Your task to perform on an android device: open a bookmark in the chrome app Image 0: 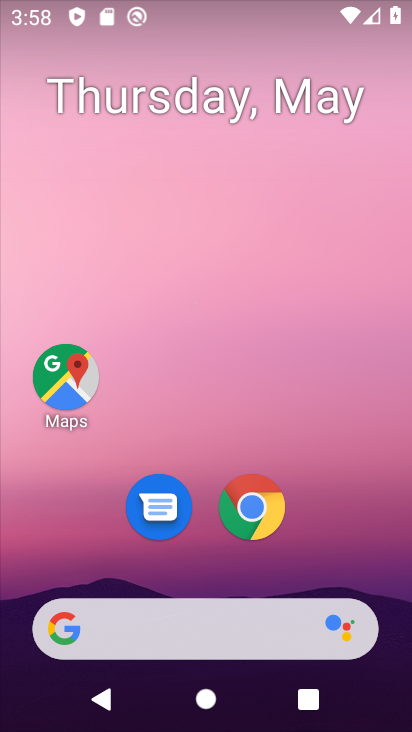
Step 0: drag from (378, 567) to (172, 98)
Your task to perform on an android device: open a bookmark in the chrome app Image 1: 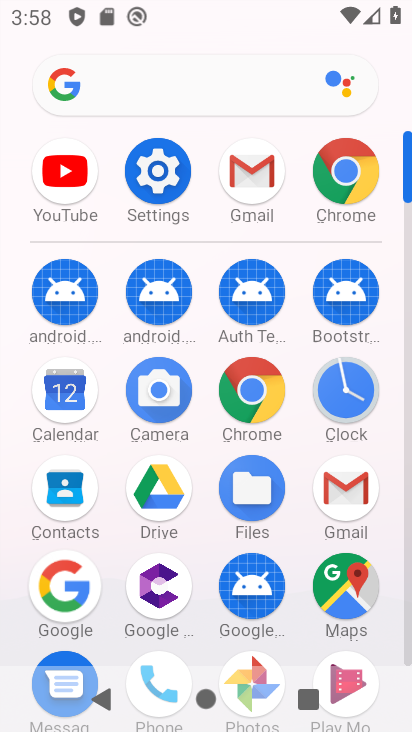
Step 1: click (357, 168)
Your task to perform on an android device: open a bookmark in the chrome app Image 2: 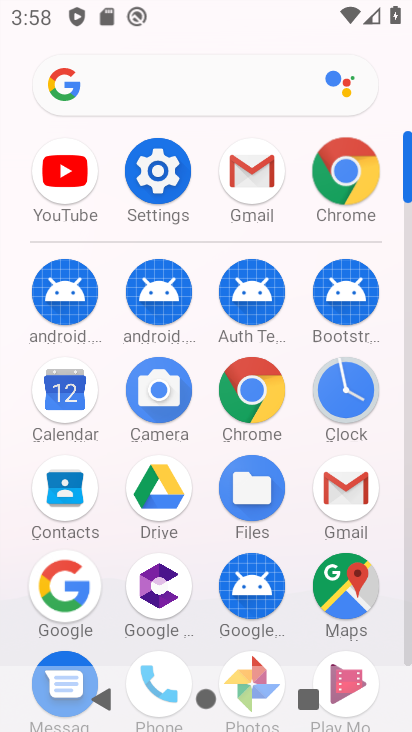
Step 2: click (357, 168)
Your task to perform on an android device: open a bookmark in the chrome app Image 3: 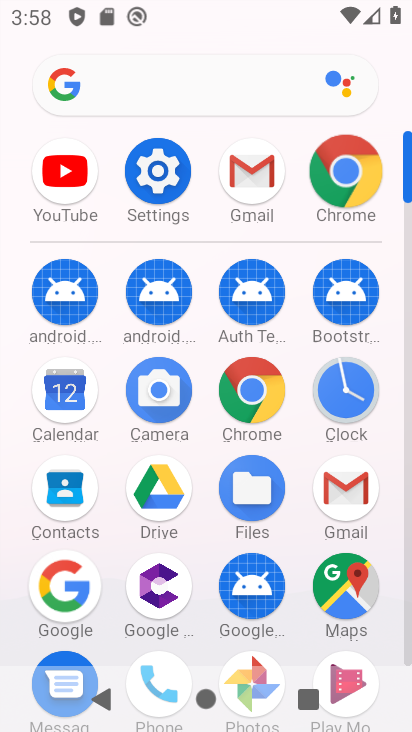
Step 3: click (349, 169)
Your task to perform on an android device: open a bookmark in the chrome app Image 4: 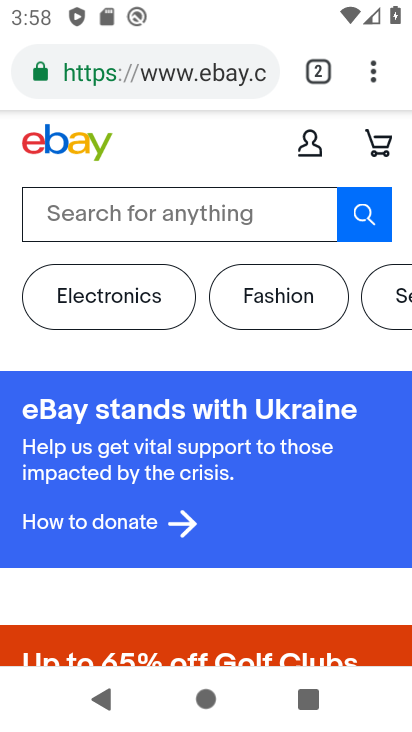
Step 4: click (347, 157)
Your task to perform on an android device: open a bookmark in the chrome app Image 5: 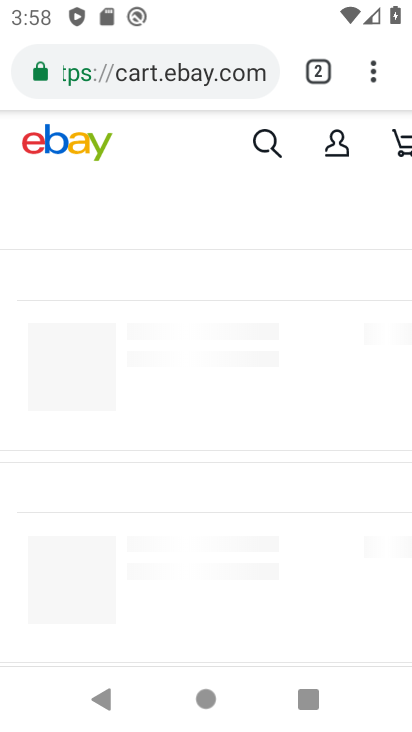
Step 5: click (360, 64)
Your task to perform on an android device: open a bookmark in the chrome app Image 6: 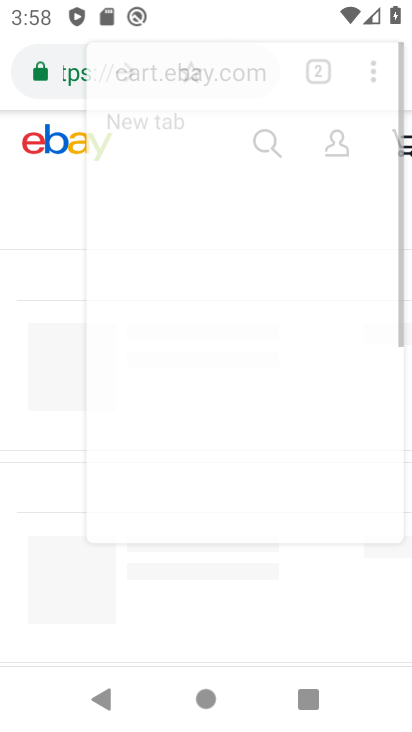
Step 6: drag from (372, 75) to (237, 512)
Your task to perform on an android device: open a bookmark in the chrome app Image 7: 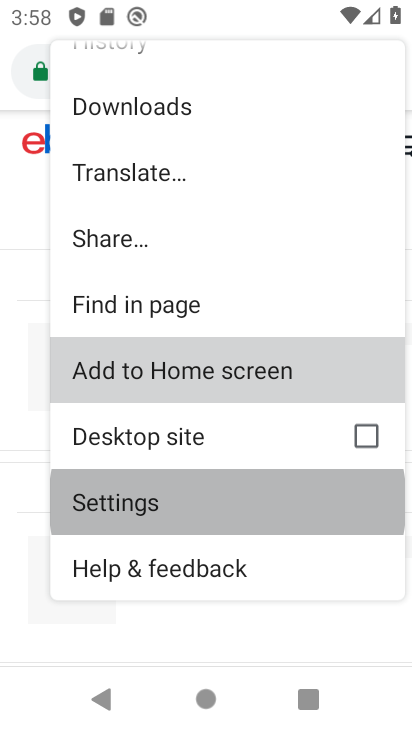
Step 7: drag from (159, 85) to (208, 424)
Your task to perform on an android device: open a bookmark in the chrome app Image 8: 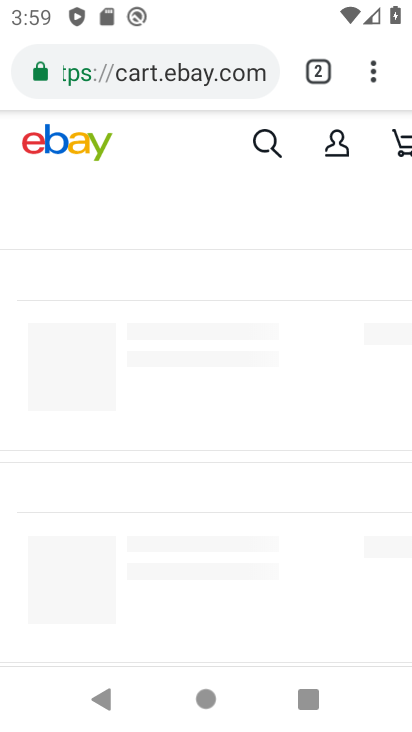
Step 8: drag from (223, 111) to (253, 349)
Your task to perform on an android device: open a bookmark in the chrome app Image 9: 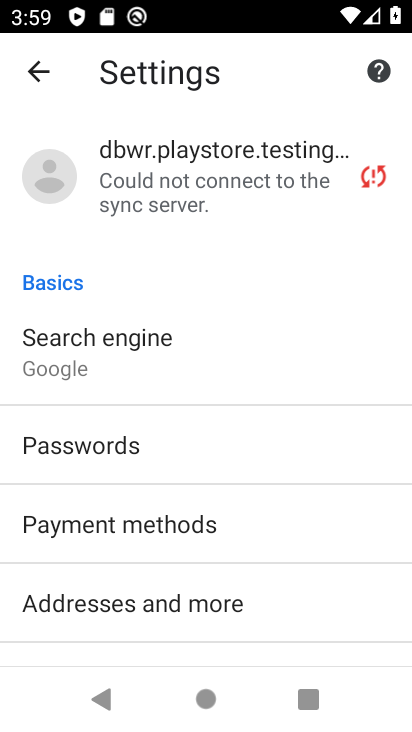
Step 9: click (34, 70)
Your task to perform on an android device: open a bookmark in the chrome app Image 10: 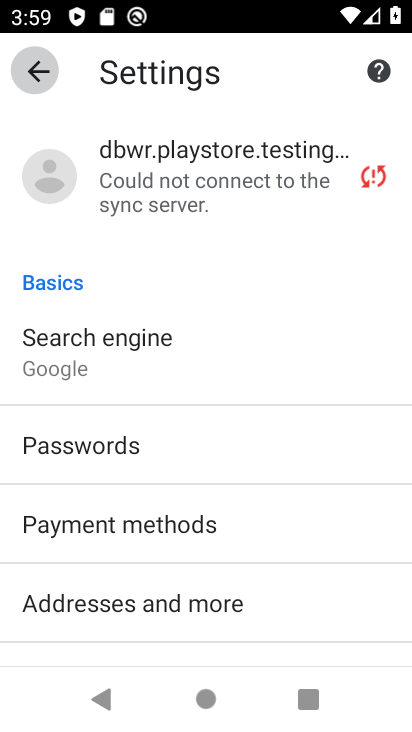
Step 10: click (34, 71)
Your task to perform on an android device: open a bookmark in the chrome app Image 11: 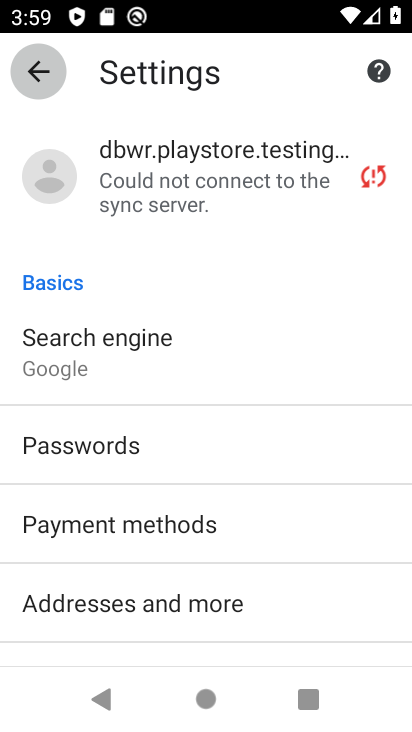
Step 11: click (34, 71)
Your task to perform on an android device: open a bookmark in the chrome app Image 12: 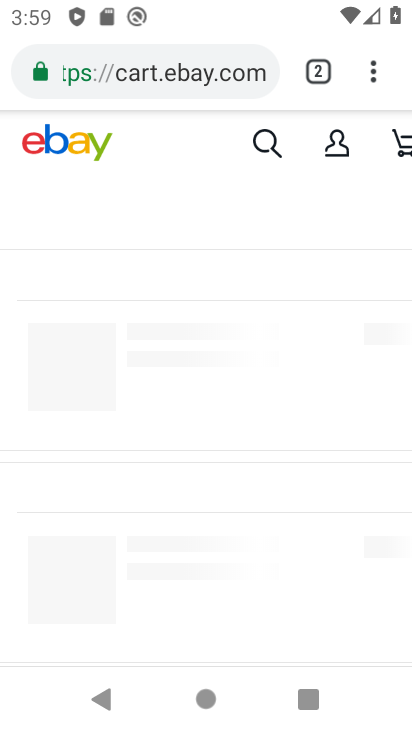
Step 12: drag from (371, 72) to (127, 281)
Your task to perform on an android device: open a bookmark in the chrome app Image 13: 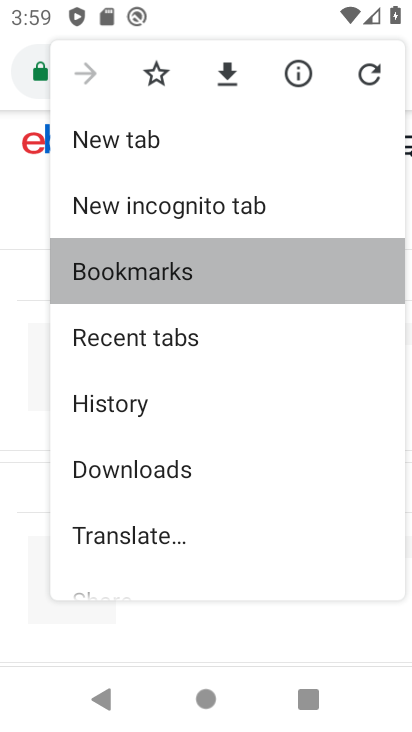
Step 13: click (127, 281)
Your task to perform on an android device: open a bookmark in the chrome app Image 14: 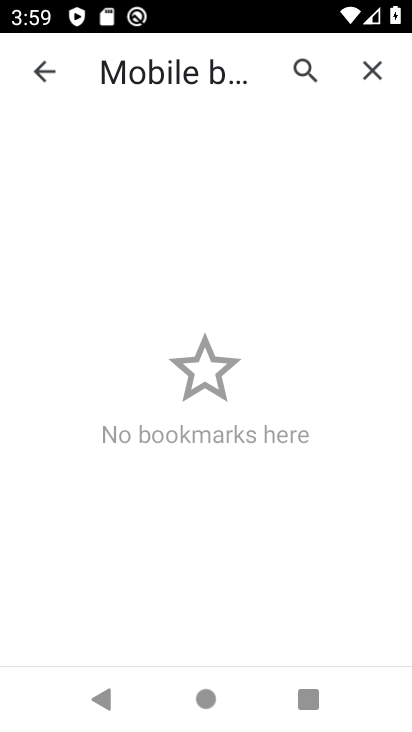
Step 14: task complete